Your task to perform on an android device: Go to Yahoo.com Image 0: 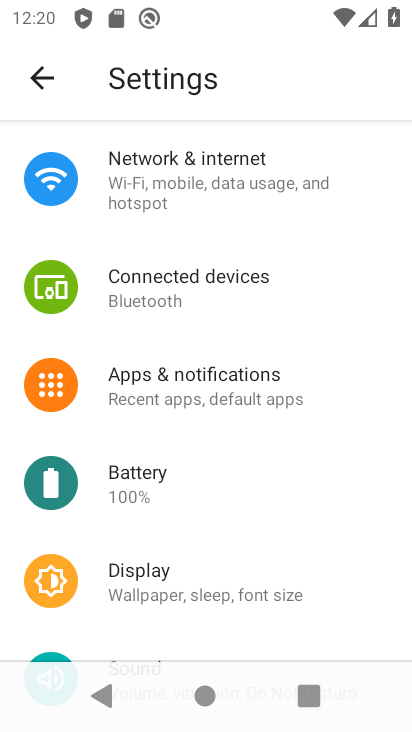
Step 0: press home button
Your task to perform on an android device: Go to Yahoo.com Image 1: 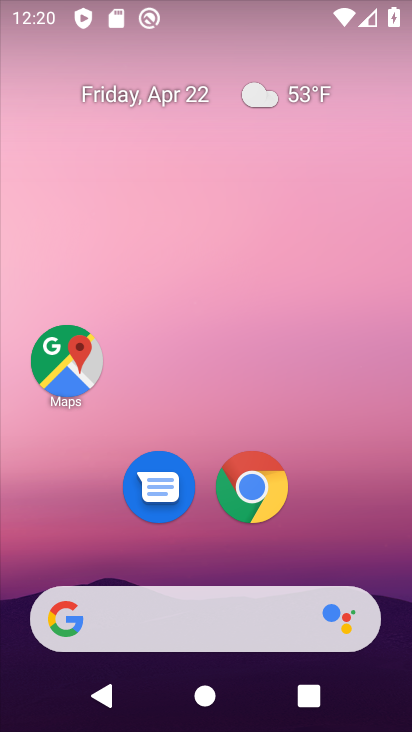
Step 1: click (240, 488)
Your task to perform on an android device: Go to Yahoo.com Image 2: 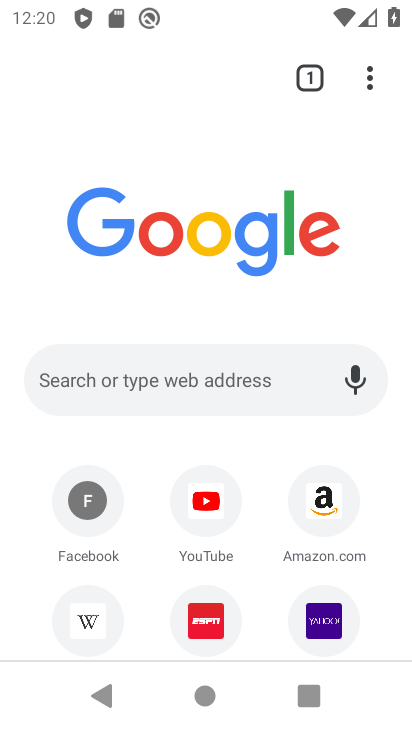
Step 2: click (342, 602)
Your task to perform on an android device: Go to Yahoo.com Image 3: 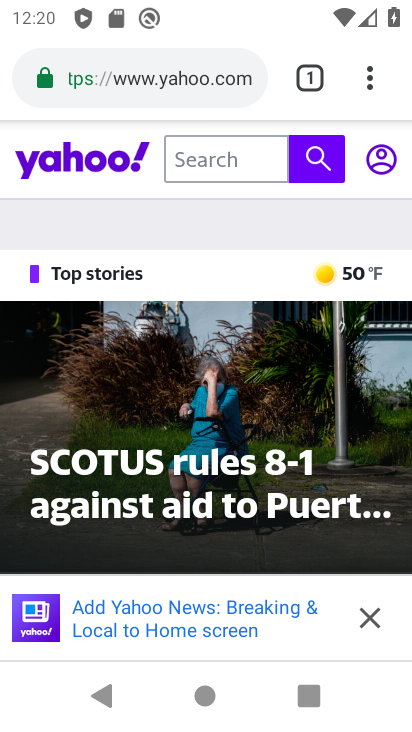
Step 3: task complete